Your task to perform on an android device: Go to settings Image 0: 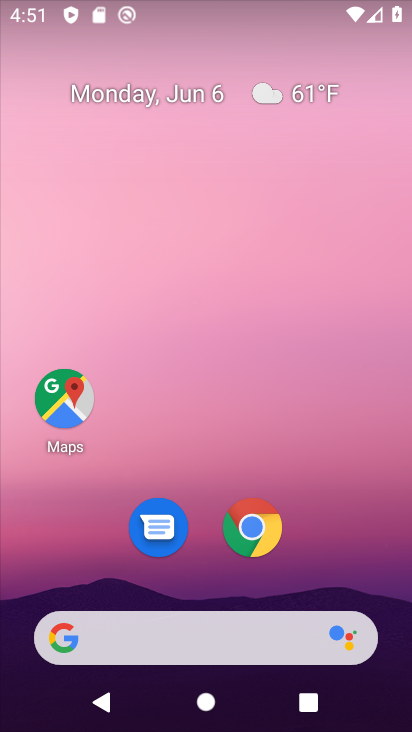
Step 0: drag from (389, 546) to (371, 214)
Your task to perform on an android device: Go to settings Image 1: 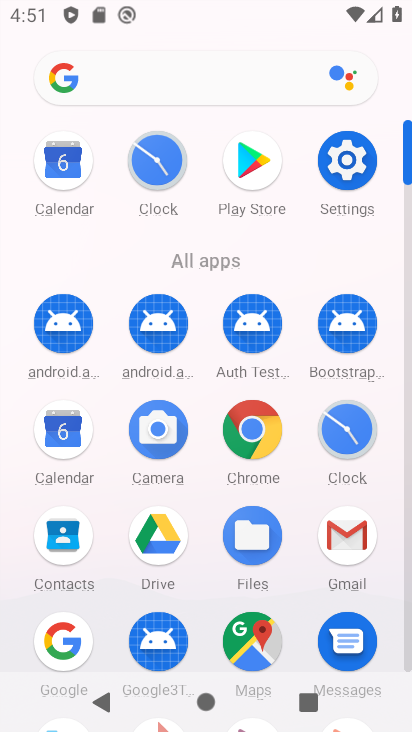
Step 1: click (352, 156)
Your task to perform on an android device: Go to settings Image 2: 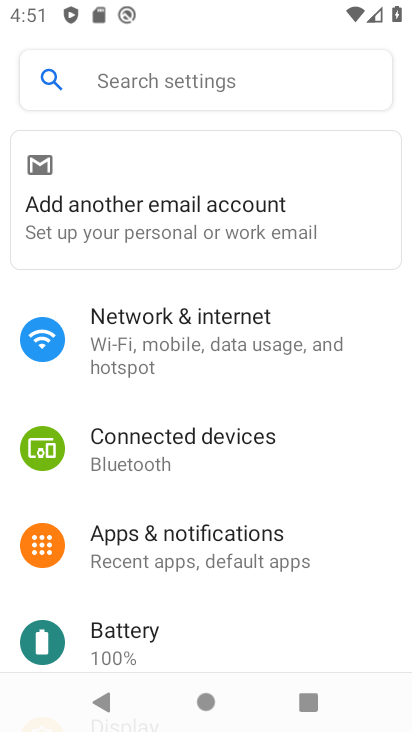
Step 2: task complete